Your task to perform on an android device: Do I have any events this weekend? Image 0: 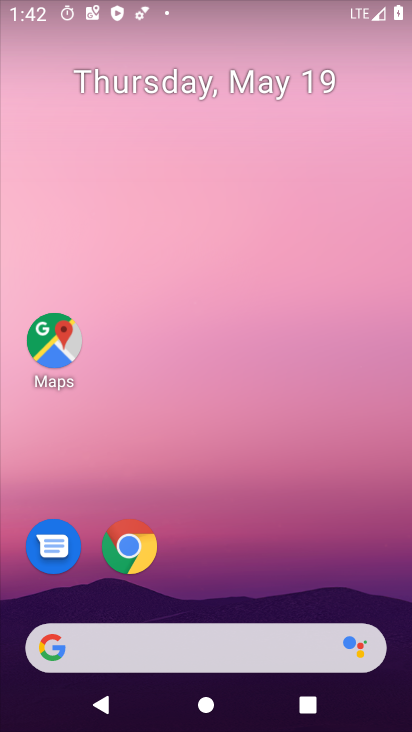
Step 0: click (211, 99)
Your task to perform on an android device: Do I have any events this weekend? Image 1: 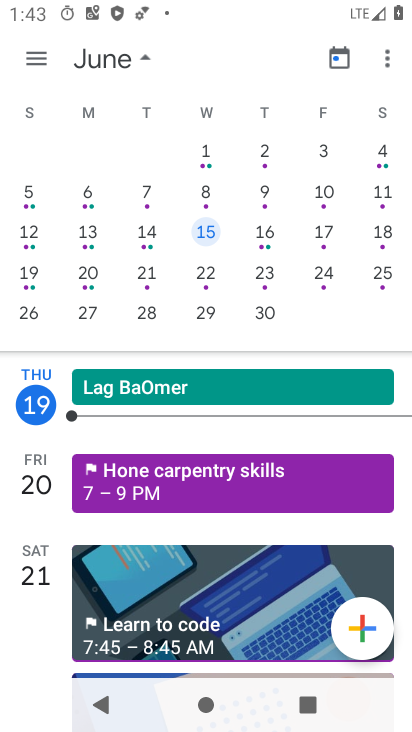
Step 1: click (378, 229)
Your task to perform on an android device: Do I have any events this weekend? Image 2: 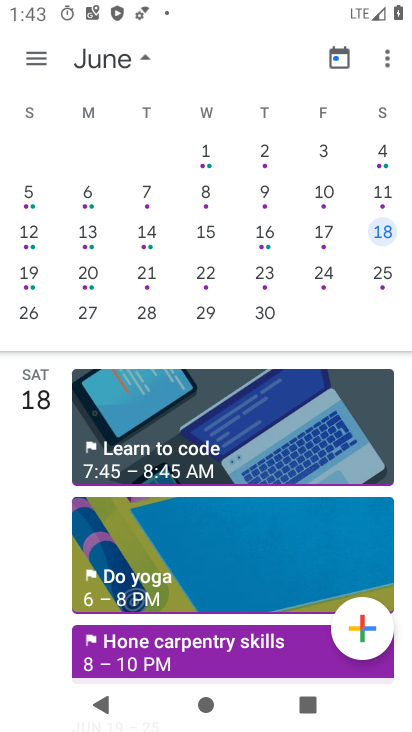
Step 2: click (180, 672)
Your task to perform on an android device: Do I have any events this weekend? Image 3: 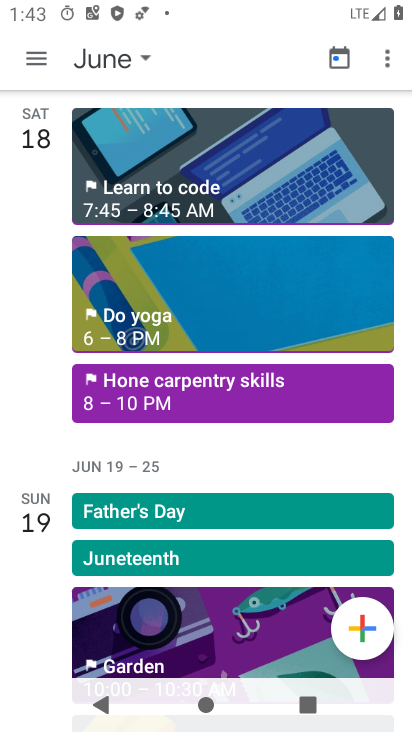
Step 3: click (165, 647)
Your task to perform on an android device: Do I have any events this weekend? Image 4: 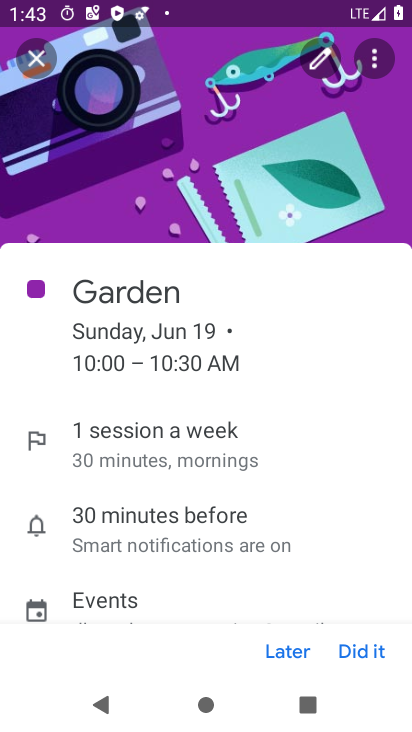
Step 4: task complete